Your task to perform on an android device: empty trash in the gmail app Image 0: 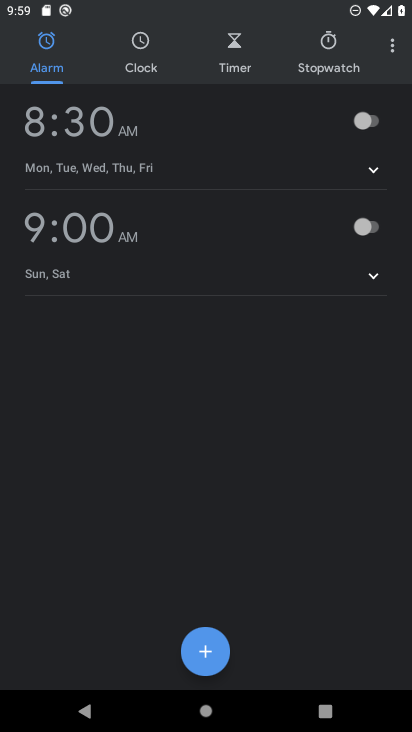
Step 0: press home button
Your task to perform on an android device: empty trash in the gmail app Image 1: 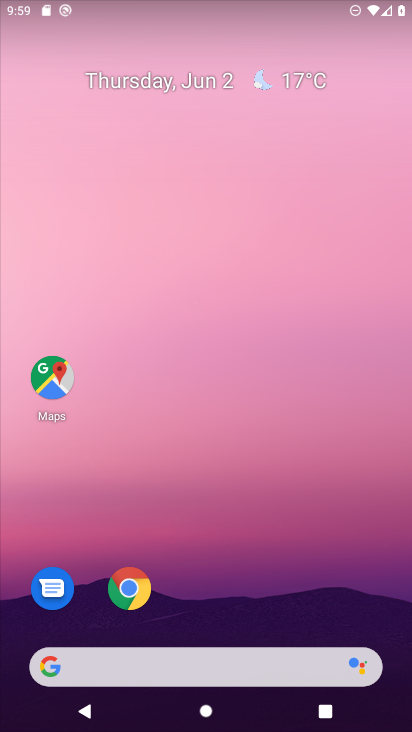
Step 1: drag from (227, 578) to (381, 0)
Your task to perform on an android device: empty trash in the gmail app Image 2: 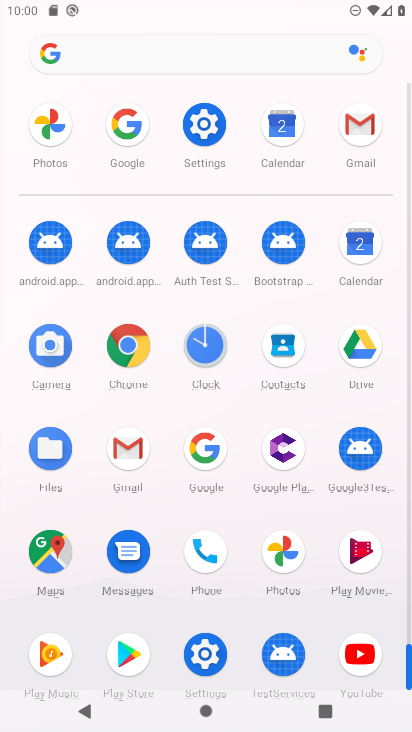
Step 2: click (120, 464)
Your task to perform on an android device: empty trash in the gmail app Image 3: 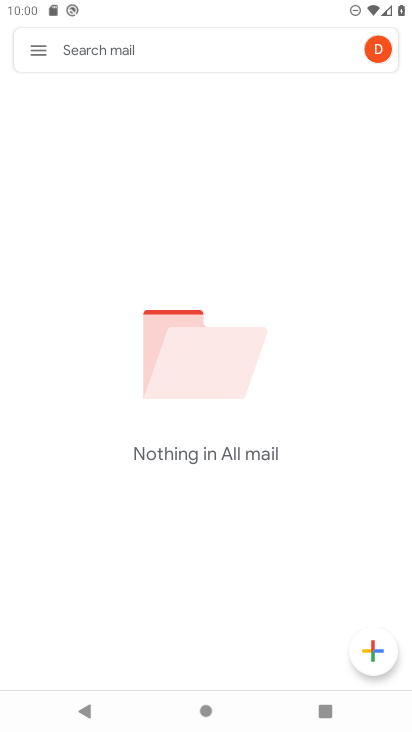
Step 3: click (40, 58)
Your task to perform on an android device: empty trash in the gmail app Image 4: 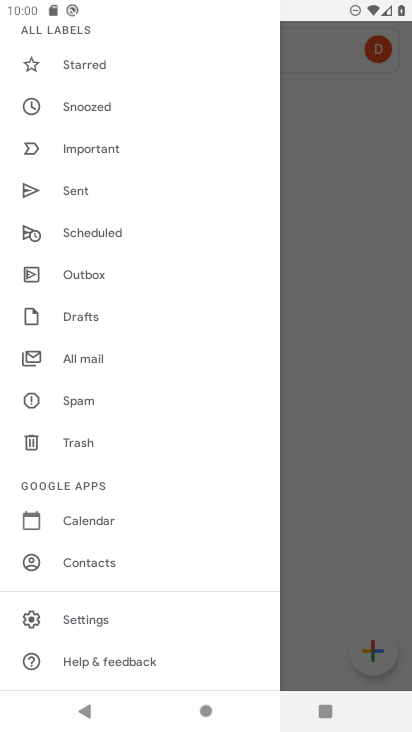
Step 4: click (90, 440)
Your task to perform on an android device: empty trash in the gmail app Image 5: 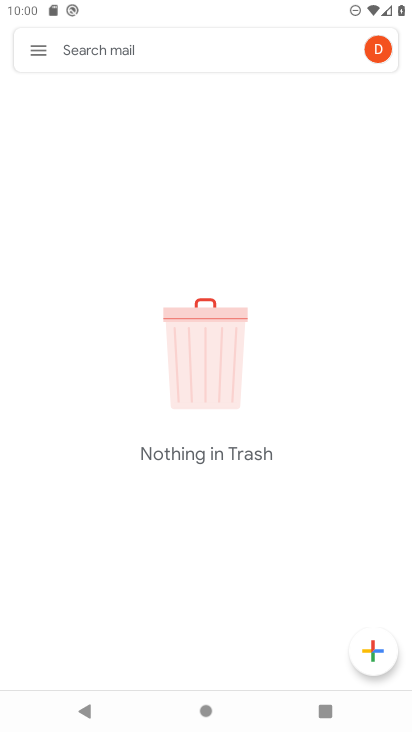
Step 5: task complete